Your task to perform on an android device: turn off picture-in-picture Image 0: 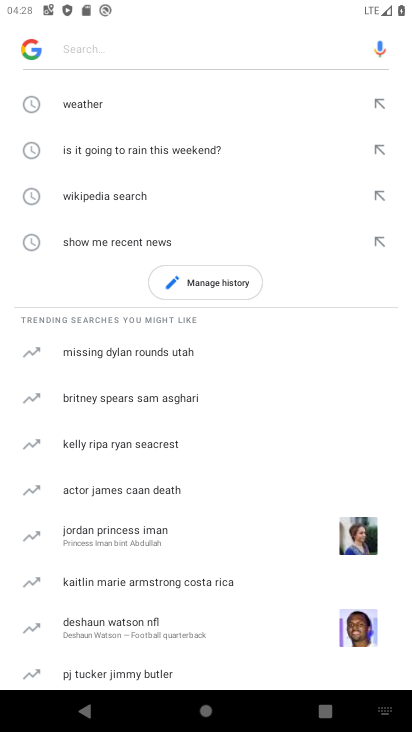
Step 0: press back button
Your task to perform on an android device: turn off picture-in-picture Image 1: 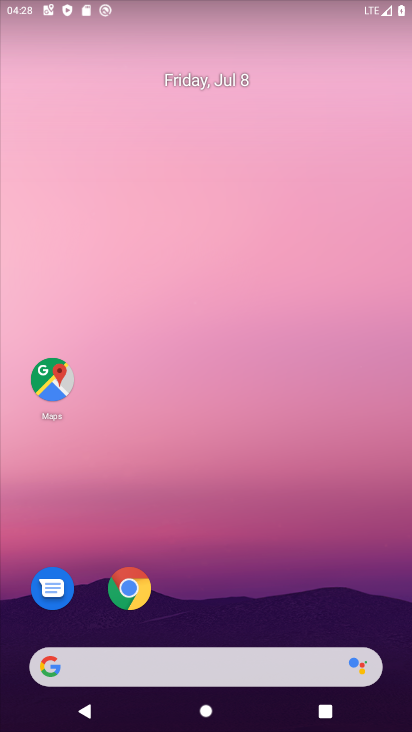
Step 1: drag from (213, 626) to (205, 350)
Your task to perform on an android device: turn off picture-in-picture Image 2: 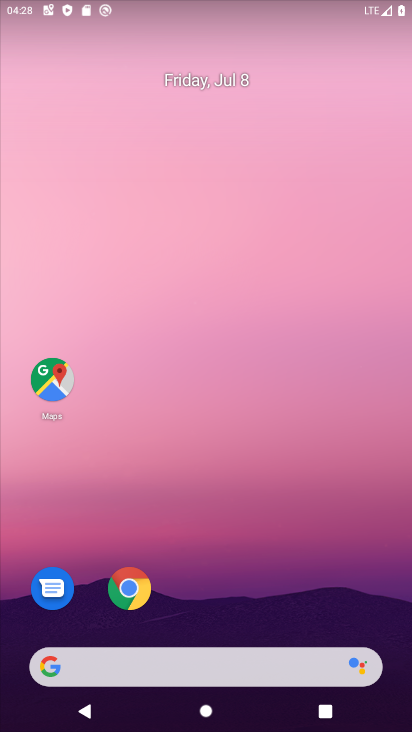
Step 2: drag from (200, 538) to (184, 267)
Your task to perform on an android device: turn off picture-in-picture Image 3: 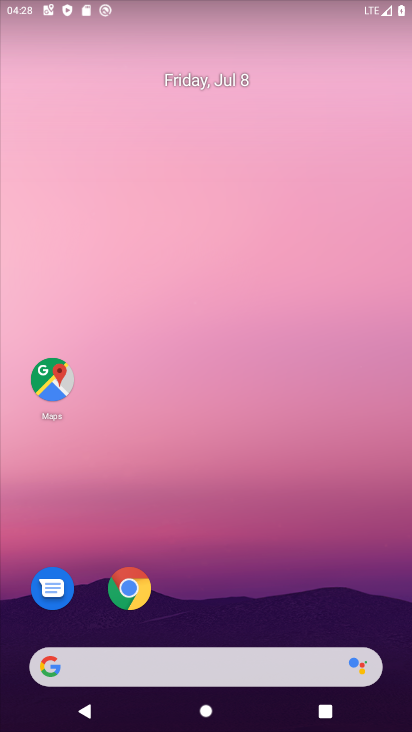
Step 3: drag from (209, 536) to (159, 13)
Your task to perform on an android device: turn off picture-in-picture Image 4: 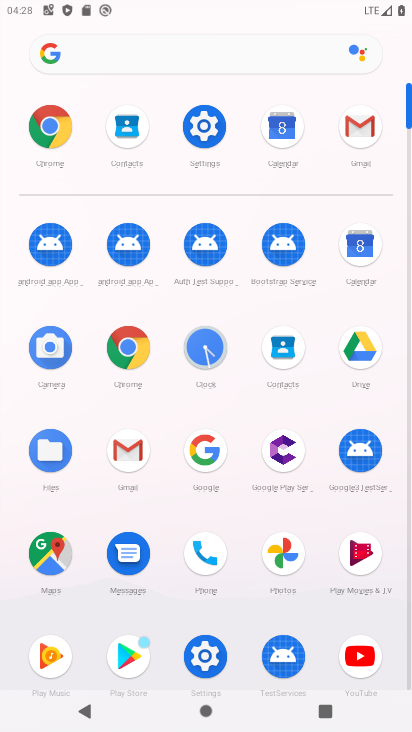
Step 4: click (209, 121)
Your task to perform on an android device: turn off picture-in-picture Image 5: 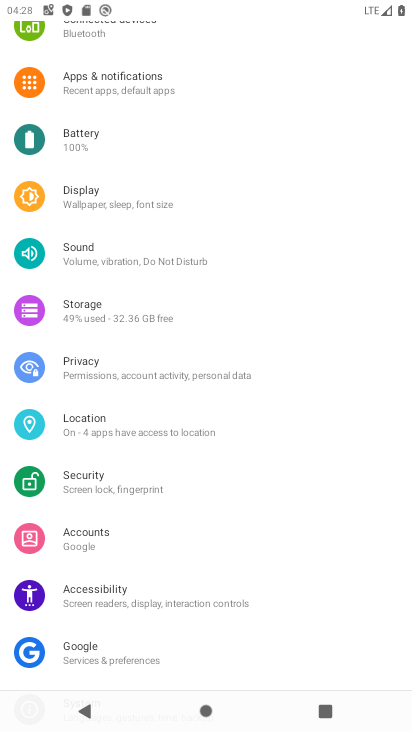
Step 5: drag from (112, 380) to (122, 183)
Your task to perform on an android device: turn off picture-in-picture Image 6: 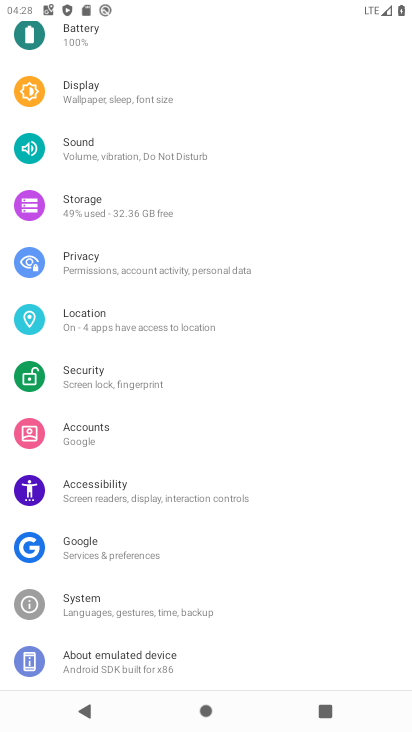
Step 6: drag from (179, 182) to (218, 525)
Your task to perform on an android device: turn off picture-in-picture Image 7: 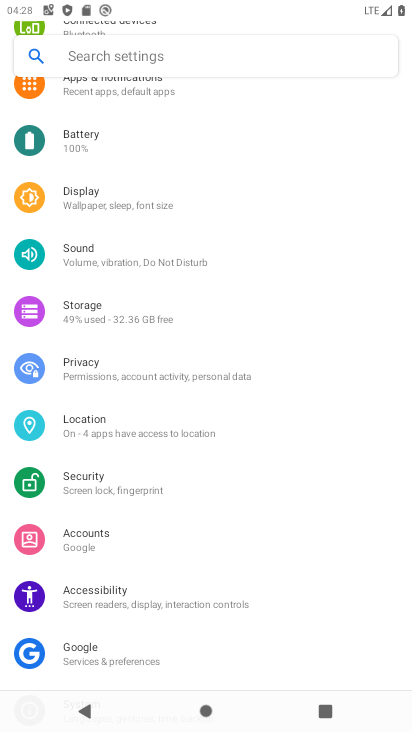
Step 7: click (97, 84)
Your task to perform on an android device: turn off picture-in-picture Image 8: 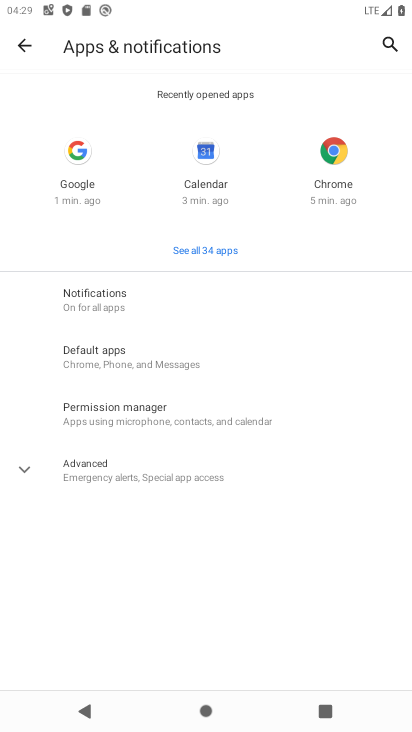
Step 8: click (103, 475)
Your task to perform on an android device: turn off picture-in-picture Image 9: 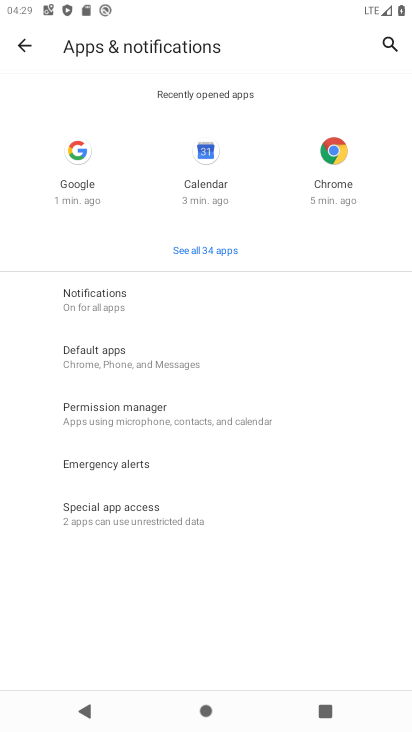
Step 9: click (82, 514)
Your task to perform on an android device: turn off picture-in-picture Image 10: 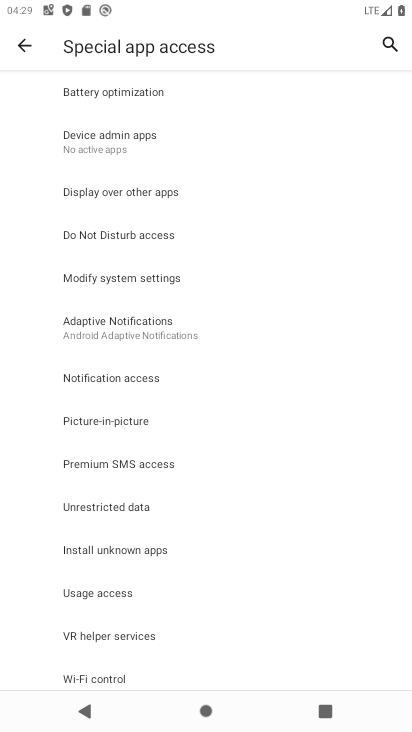
Step 10: click (129, 411)
Your task to perform on an android device: turn off picture-in-picture Image 11: 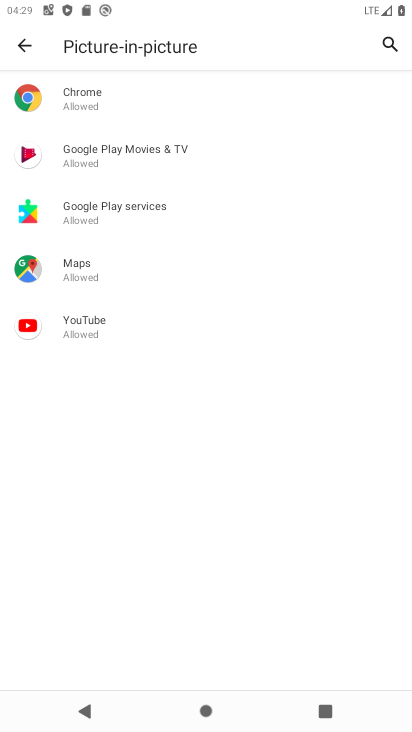
Step 11: click (99, 84)
Your task to perform on an android device: turn off picture-in-picture Image 12: 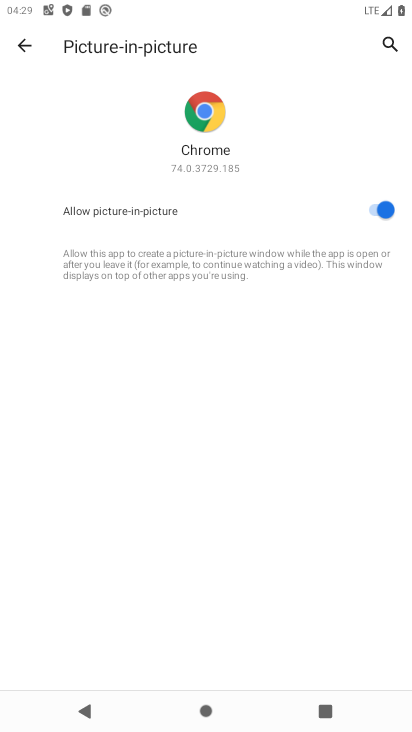
Step 12: click (372, 213)
Your task to perform on an android device: turn off picture-in-picture Image 13: 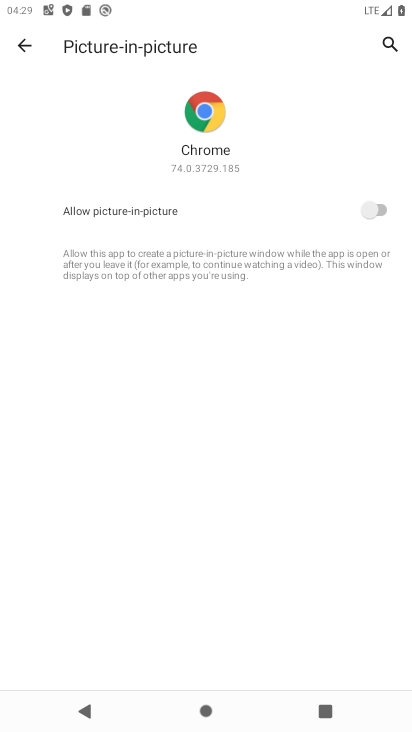
Step 13: task complete